Your task to perform on an android device: Open Wikipedia Image 0: 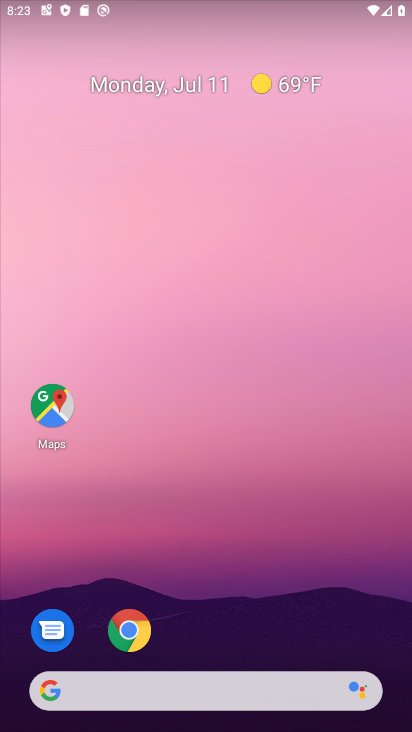
Step 0: drag from (200, 676) to (181, 129)
Your task to perform on an android device: Open Wikipedia Image 1: 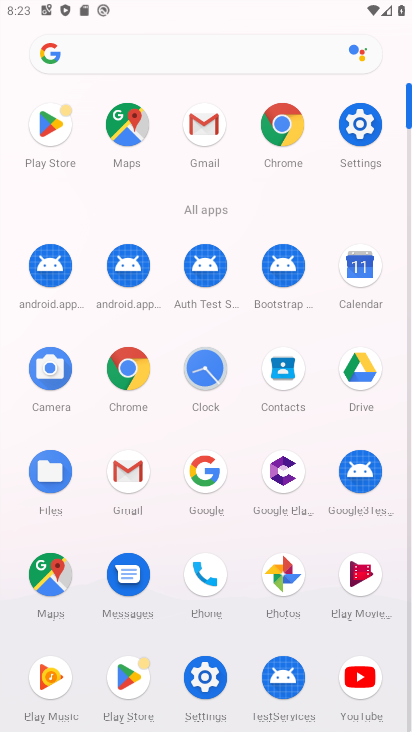
Step 1: click (293, 134)
Your task to perform on an android device: Open Wikipedia Image 2: 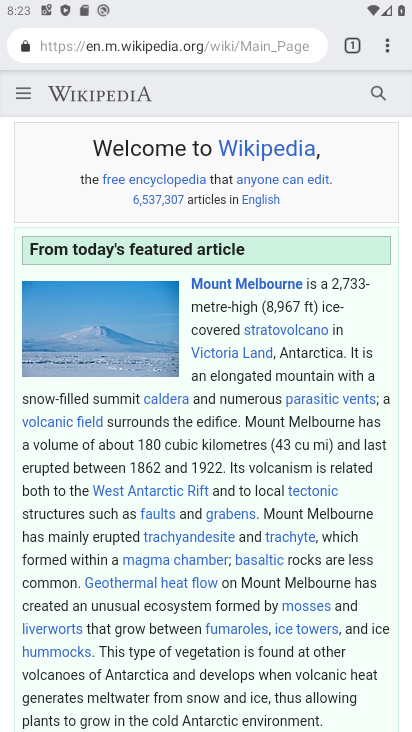
Step 2: task complete